Your task to perform on an android device: Go to wifi settings Image 0: 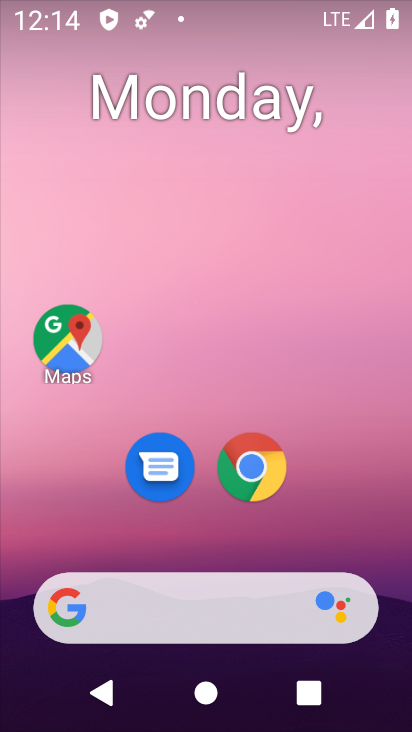
Step 0: drag from (396, 611) to (349, 47)
Your task to perform on an android device: Go to wifi settings Image 1: 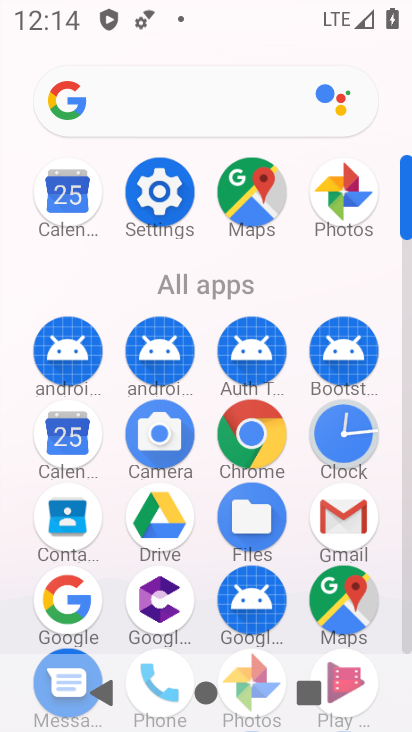
Step 1: click (407, 636)
Your task to perform on an android device: Go to wifi settings Image 2: 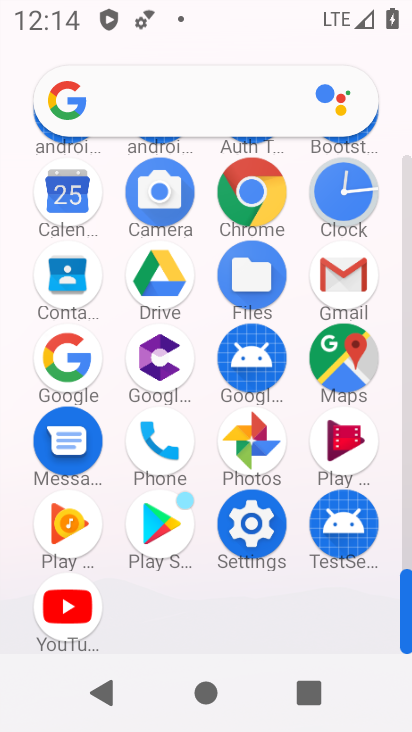
Step 2: click (250, 528)
Your task to perform on an android device: Go to wifi settings Image 3: 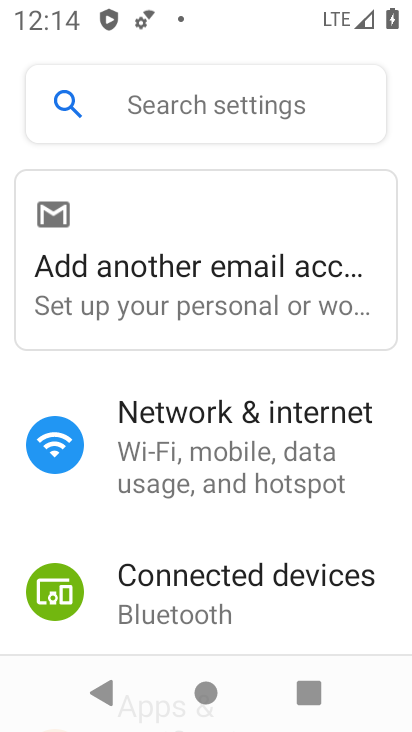
Step 3: click (203, 448)
Your task to perform on an android device: Go to wifi settings Image 4: 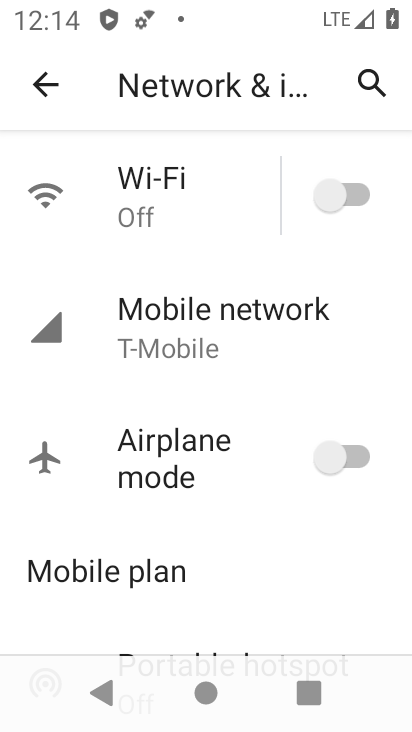
Step 4: click (132, 189)
Your task to perform on an android device: Go to wifi settings Image 5: 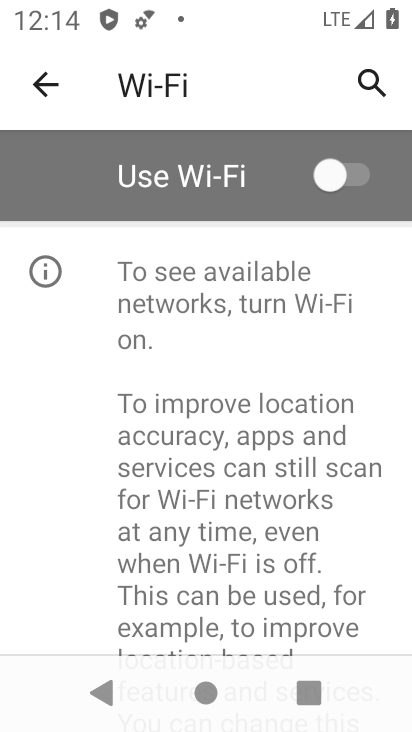
Step 5: drag from (241, 541) to (306, 268)
Your task to perform on an android device: Go to wifi settings Image 6: 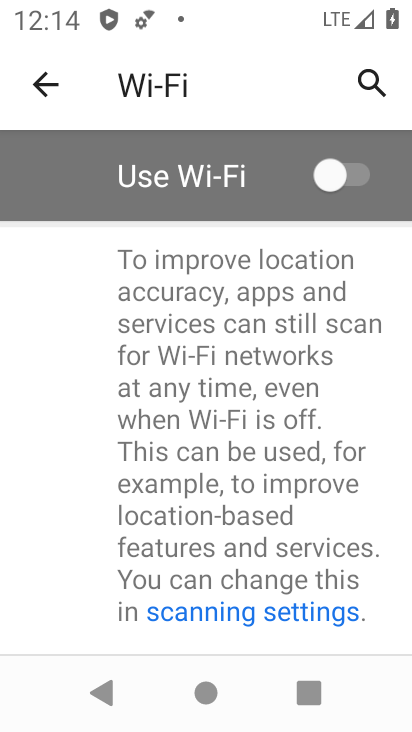
Step 6: click (349, 178)
Your task to perform on an android device: Go to wifi settings Image 7: 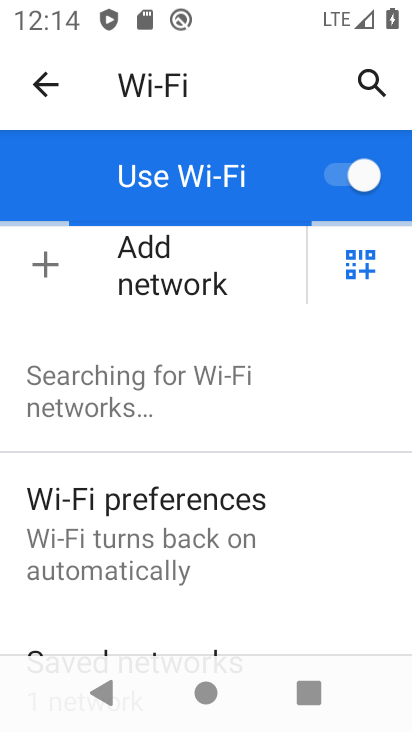
Step 7: drag from (299, 519) to (256, 474)
Your task to perform on an android device: Go to wifi settings Image 8: 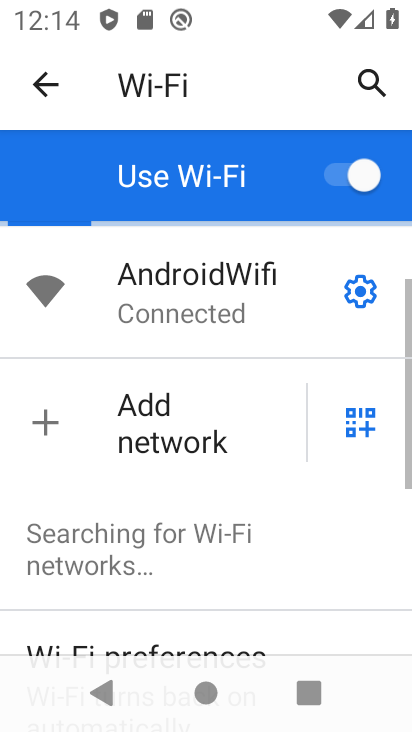
Step 8: click (360, 281)
Your task to perform on an android device: Go to wifi settings Image 9: 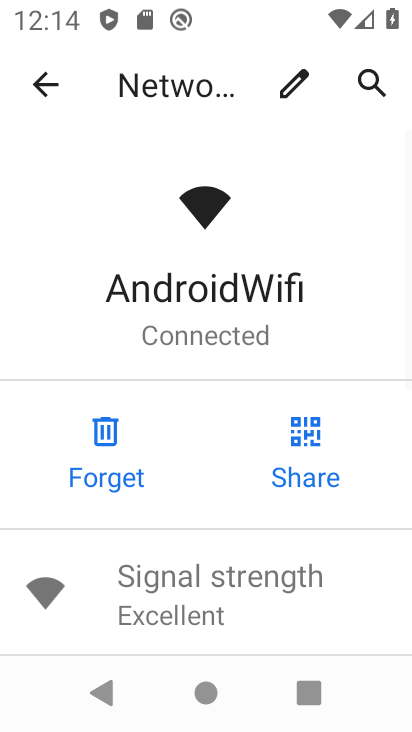
Step 9: drag from (220, 578) to (222, 141)
Your task to perform on an android device: Go to wifi settings Image 10: 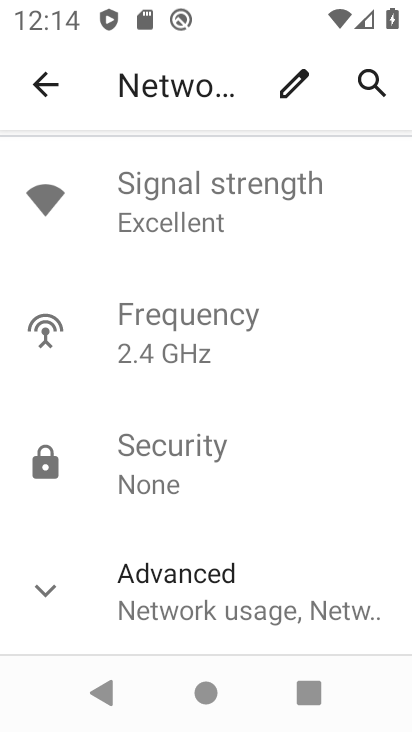
Step 10: click (39, 590)
Your task to perform on an android device: Go to wifi settings Image 11: 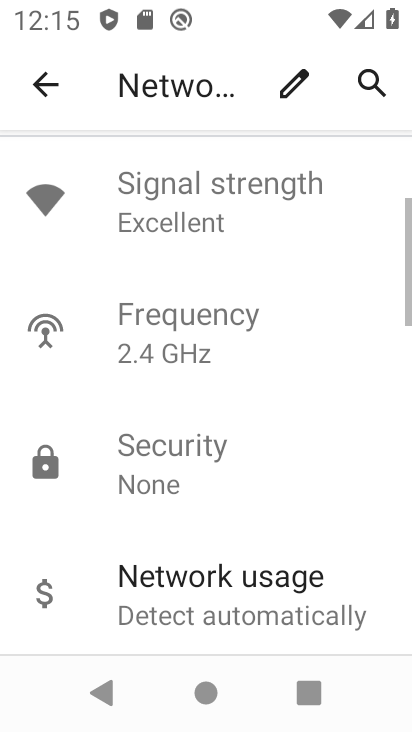
Step 11: task complete